Your task to perform on an android device: check battery use Image 0: 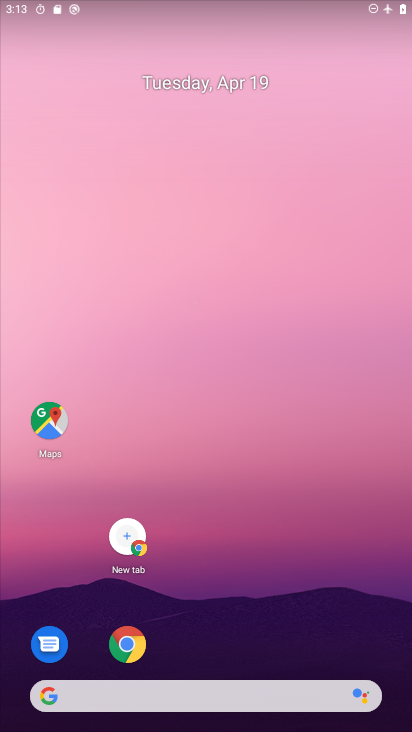
Step 0: drag from (210, 537) to (190, 62)
Your task to perform on an android device: check battery use Image 1: 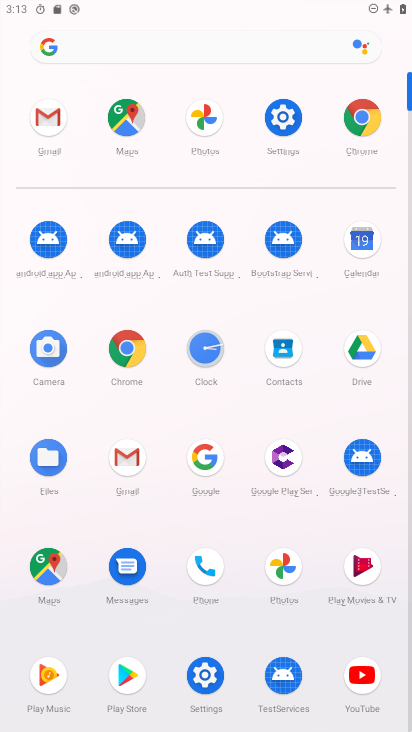
Step 1: click (287, 121)
Your task to perform on an android device: check battery use Image 2: 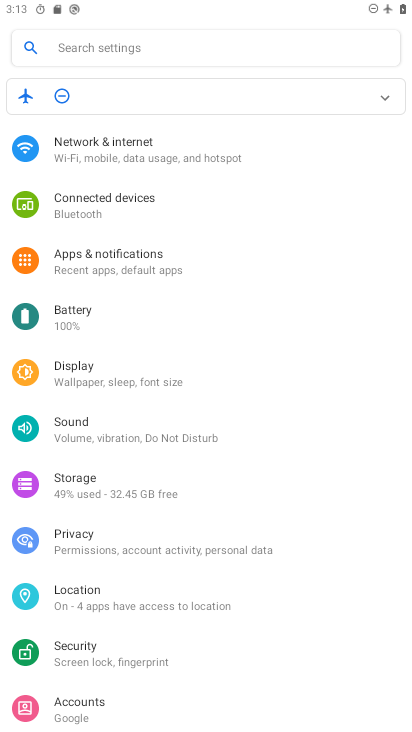
Step 2: click (71, 314)
Your task to perform on an android device: check battery use Image 3: 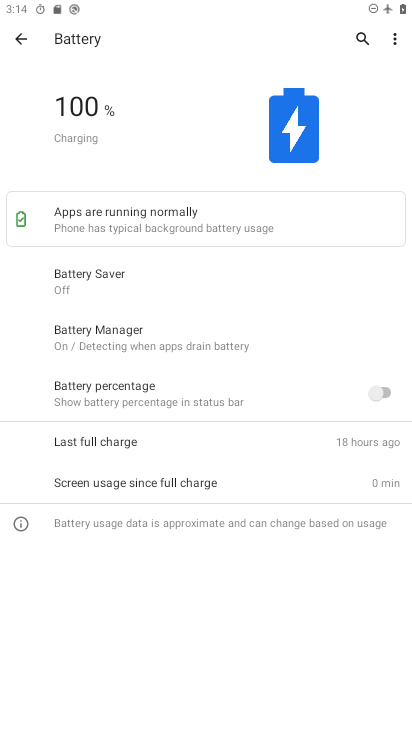
Step 3: click (69, 108)
Your task to perform on an android device: check battery use Image 4: 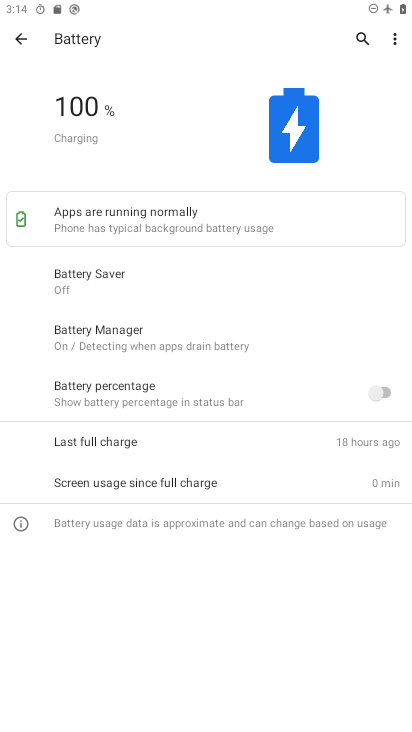
Step 4: task complete